Your task to perform on an android device: What's on my calendar today? Image 0: 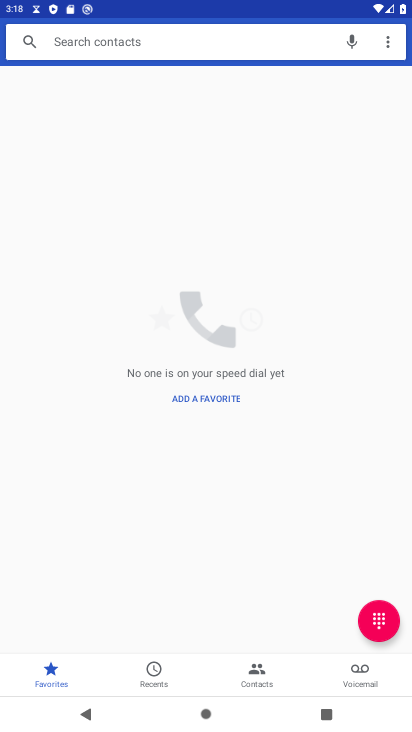
Step 0: press home button
Your task to perform on an android device: What's on my calendar today? Image 1: 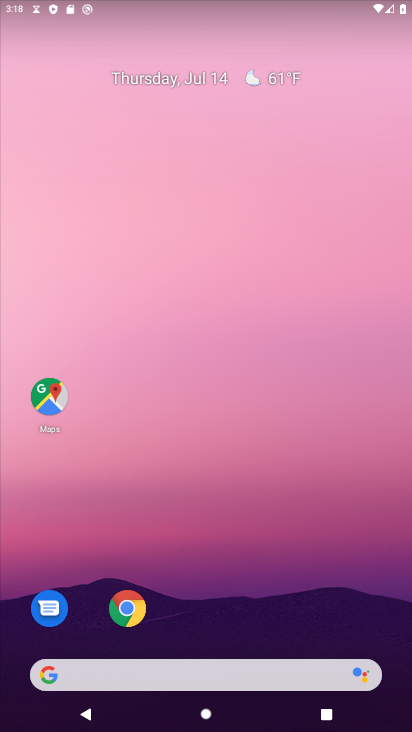
Step 1: drag from (227, 662) to (198, 209)
Your task to perform on an android device: What's on my calendar today? Image 2: 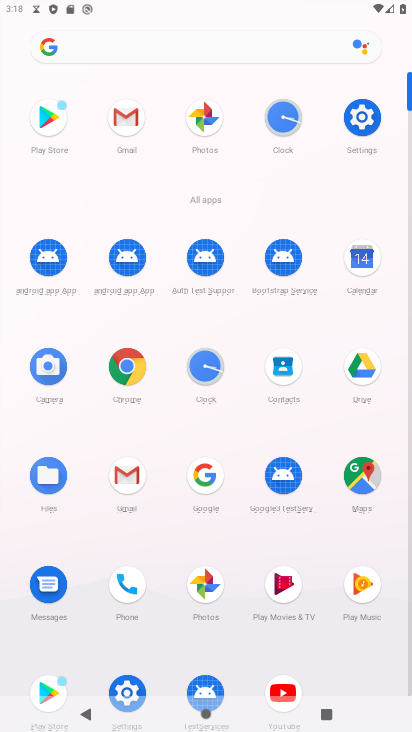
Step 2: click (355, 269)
Your task to perform on an android device: What's on my calendar today? Image 3: 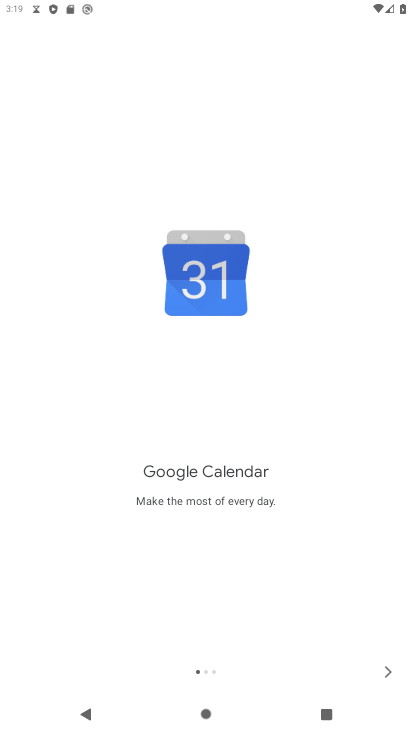
Step 3: click (388, 670)
Your task to perform on an android device: What's on my calendar today? Image 4: 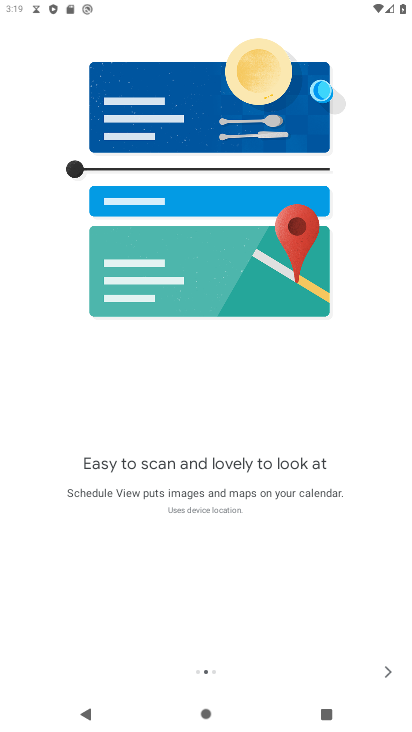
Step 4: click (388, 670)
Your task to perform on an android device: What's on my calendar today? Image 5: 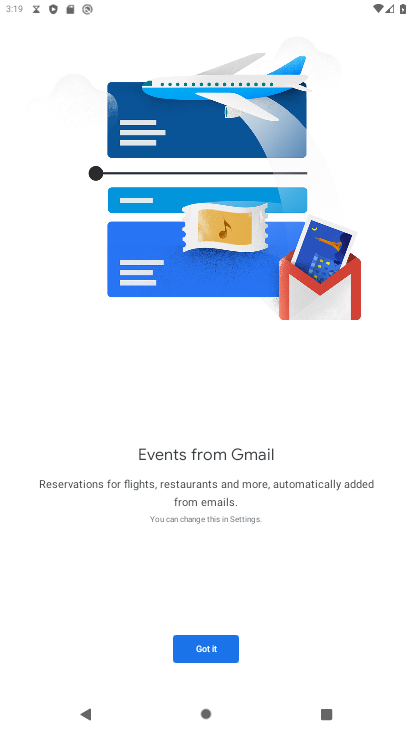
Step 5: click (209, 650)
Your task to perform on an android device: What's on my calendar today? Image 6: 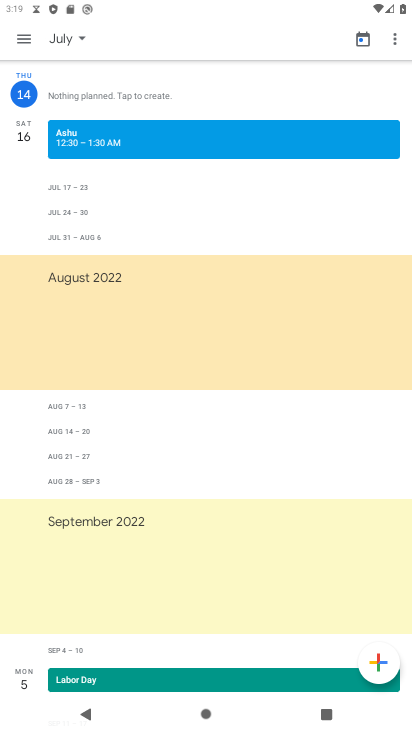
Step 6: task complete